Your task to perform on an android device: Show me popular games on the Play Store Image 0: 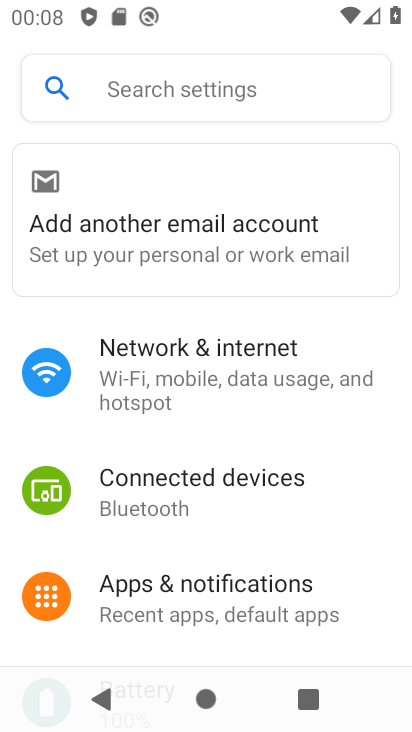
Step 0: press home button
Your task to perform on an android device: Show me popular games on the Play Store Image 1: 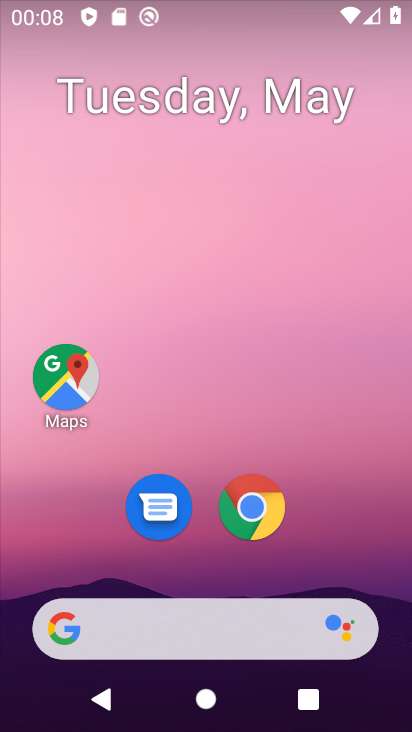
Step 1: drag from (218, 597) to (211, 171)
Your task to perform on an android device: Show me popular games on the Play Store Image 2: 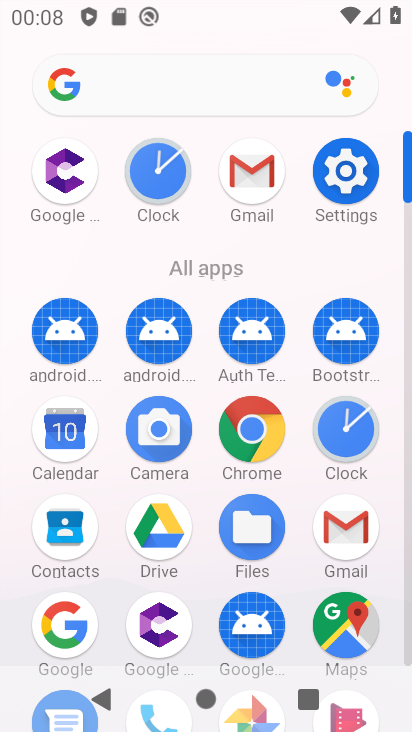
Step 2: drag from (199, 660) to (188, 288)
Your task to perform on an android device: Show me popular games on the Play Store Image 3: 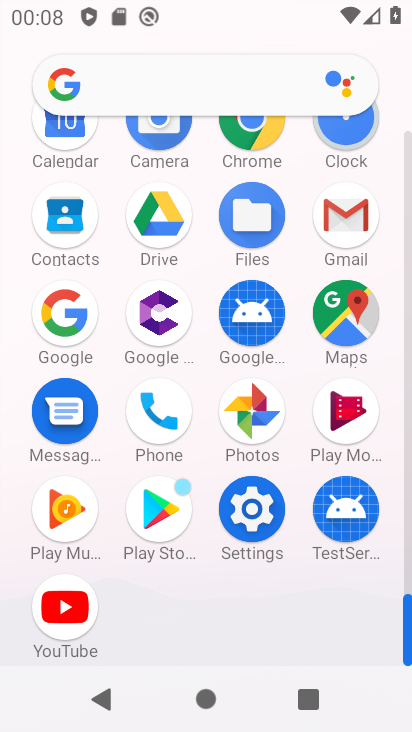
Step 3: click (148, 519)
Your task to perform on an android device: Show me popular games on the Play Store Image 4: 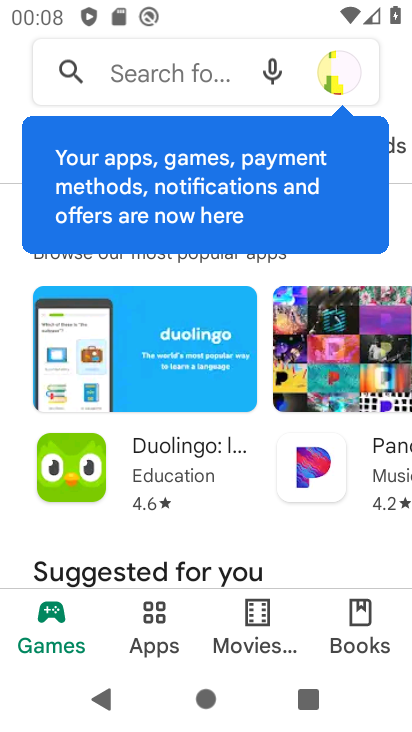
Step 4: click (180, 84)
Your task to perform on an android device: Show me popular games on the Play Store Image 5: 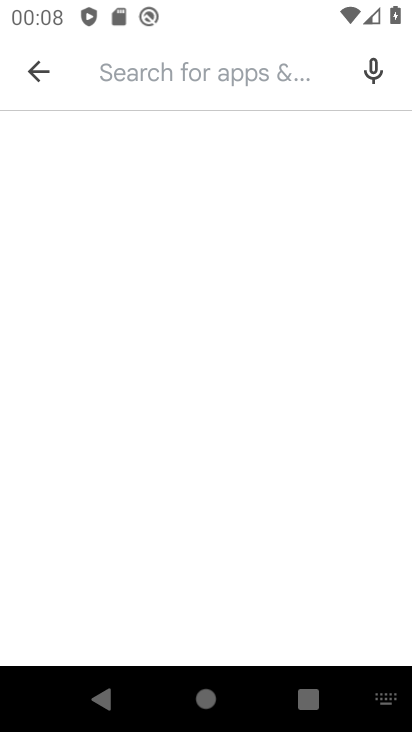
Step 5: type "popular games"
Your task to perform on an android device: Show me popular games on the Play Store Image 6: 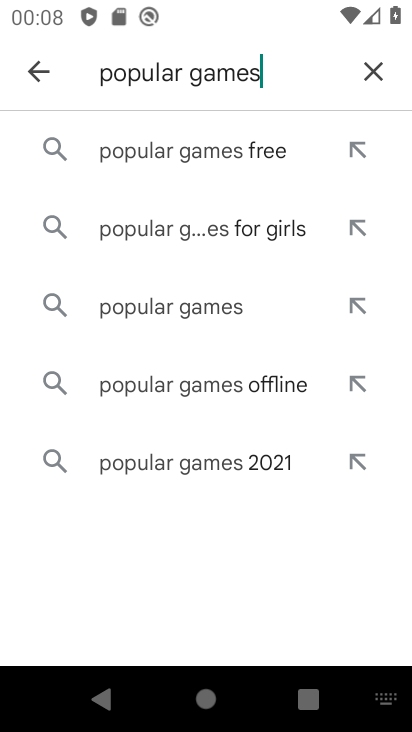
Step 6: click (222, 147)
Your task to perform on an android device: Show me popular games on the Play Store Image 7: 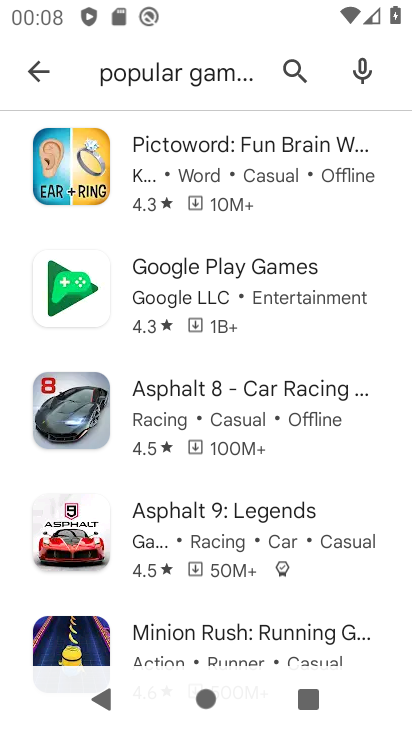
Step 7: task complete